Your task to perform on an android device: turn off picture-in-picture Image 0: 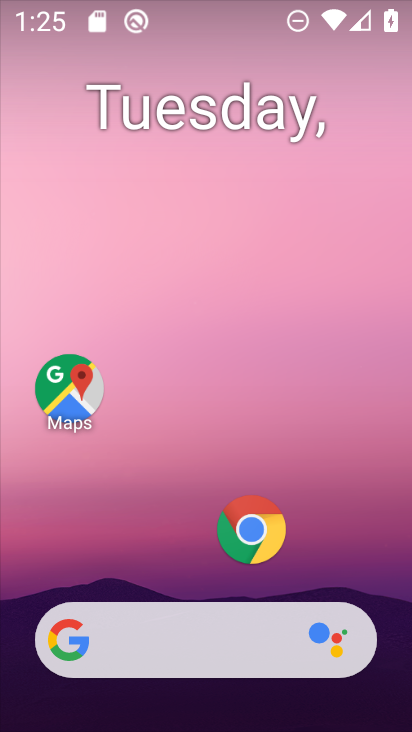
Step 0: drag from (248, 687) to (307, 0)
Your task to perform on an android device: turn off picture-in-picture Image 1: 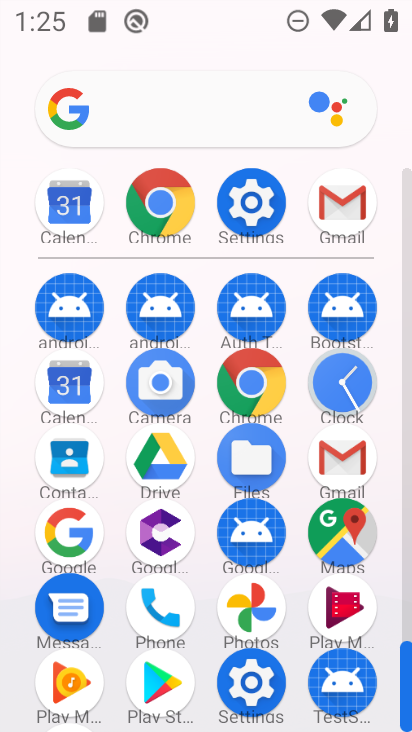
Step 1: click (250, 190)
Your task to perform on an android device: turn off picture-in-picture Image 2: 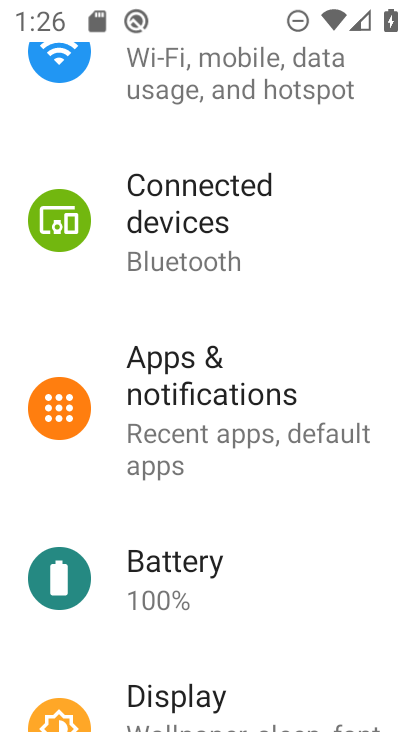
Step 2: drag from (230, 95) to (240, 271)
Your task to perform on an android device: turn off picture-in-picture Image 3: 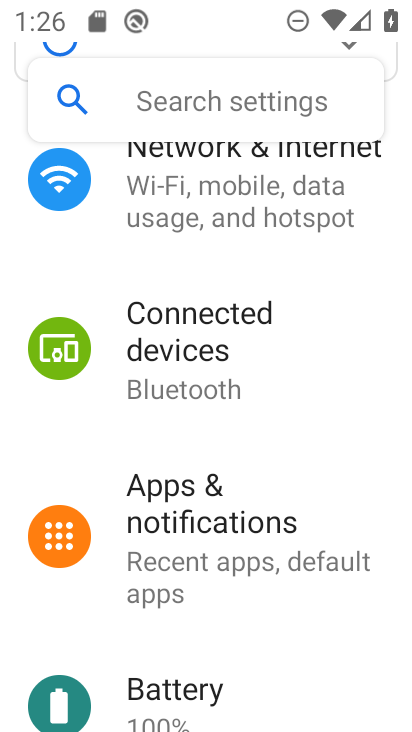
Step 3: click (217, 102)
Your task to perform on an android device: turn off picture-in-picture Image 4: 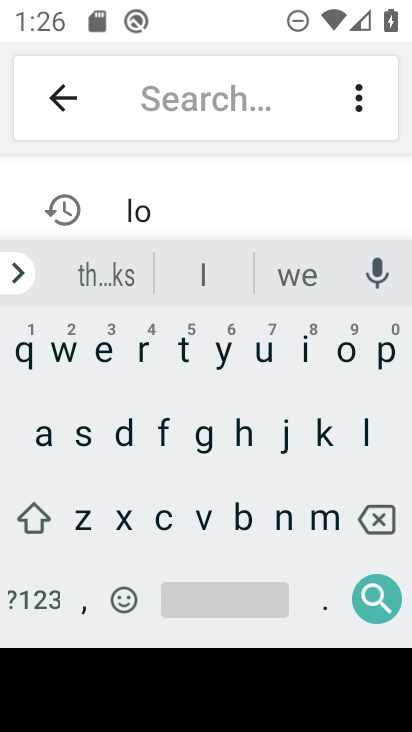
Step 4: click (387, 355)
Your task to perform on an android device: turn off picture-in-picture Image 5: 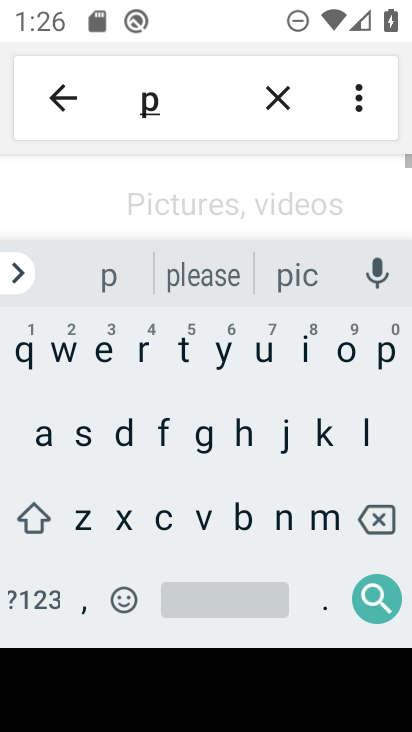
Step 5: click (303, 350)
Your task to perform on an android device: turn off picture-in-picture Image 6: 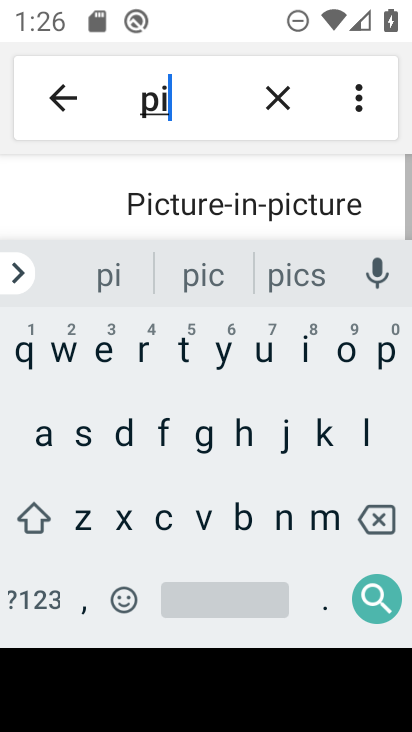
Step 6: click (162, 518)
Your task to perform on an android device: turn off picture-in-picture Image 7: 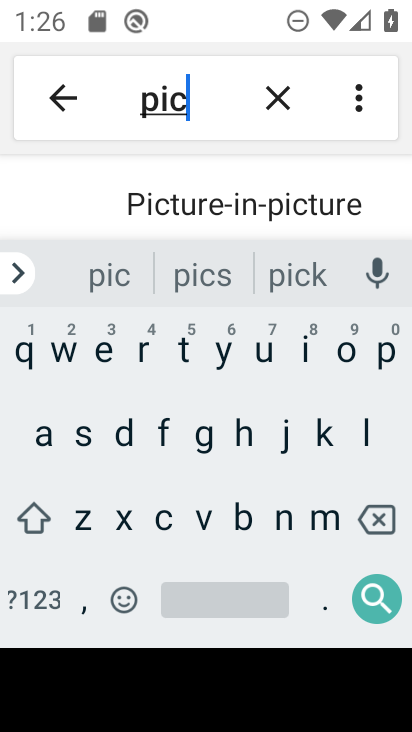
Step 7: click (261, 201)
Your task to perform on an android device: turn off picture-in-picture Image 8: 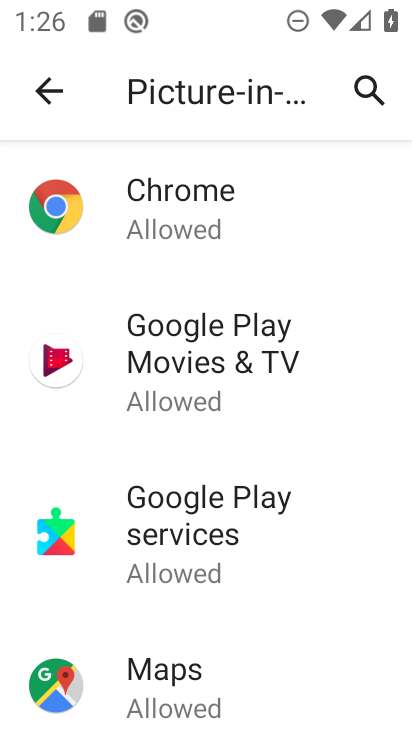
Step 8: task complete